Your task to perform on an android device: open app "Airtel Thanks" (install if not already installed) and go to login screen Image 0: 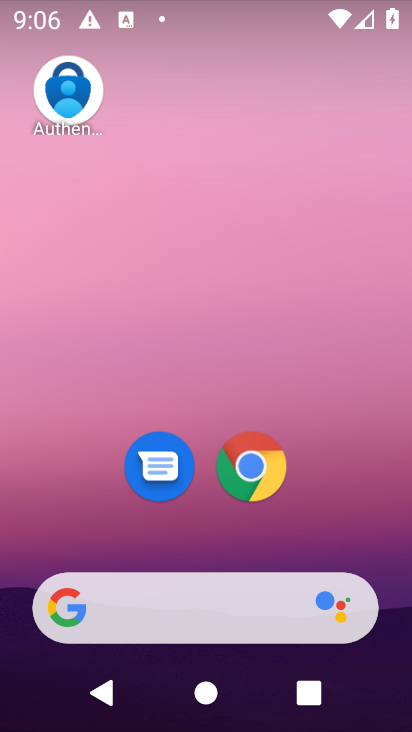
Step 0: drag from (82, 521) to (171, 80)
Your task to perform on an android device: open app "Airtel Thanks" (install if not already installed) and go to login screen Image 1: 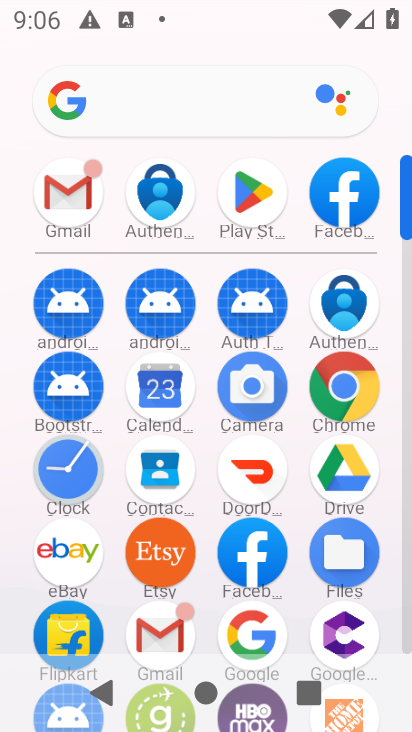
Step 1: click (267, 197)
Your task to perform on an android device: open app "Airtel Thanks" (install if not already installed) and go to login screen Image 2: 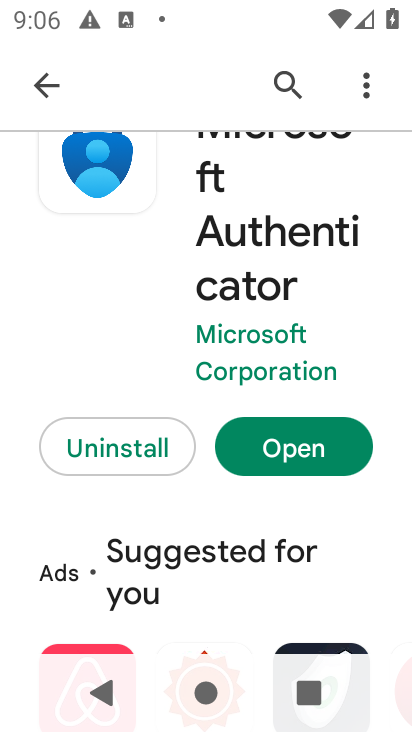
Step 2: click (295, 82)
Your task to perform on an android device: open app "Airtel Thanks" (install if not already installed) and go to login screen Image 3: 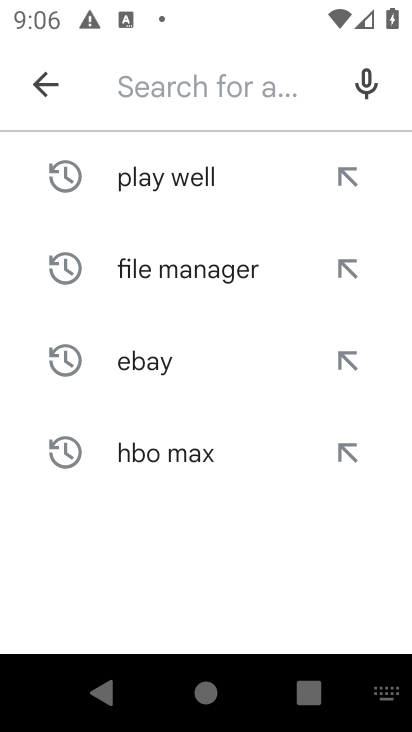
Step 3: click (223, 98)
Your task to perform on an android device: open app "Airtel Thanks" (install if not already installed) and go to login screen Image 4: 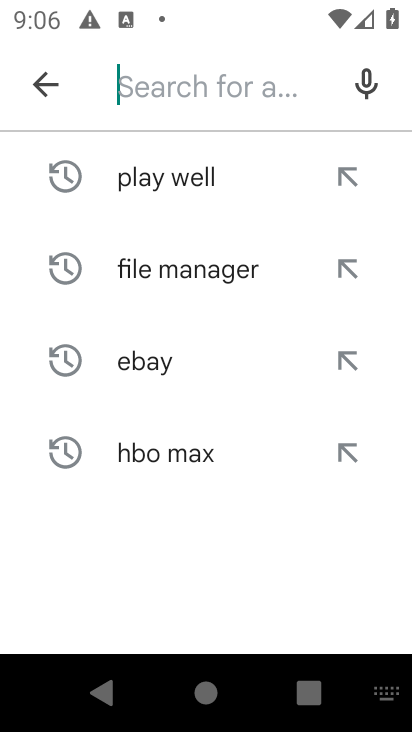
Step 4: type "airtel  thanks"
Your task to perform on an android device: open app "Airtel Thanks" (install if not already installed) and go to login screen Image 5: 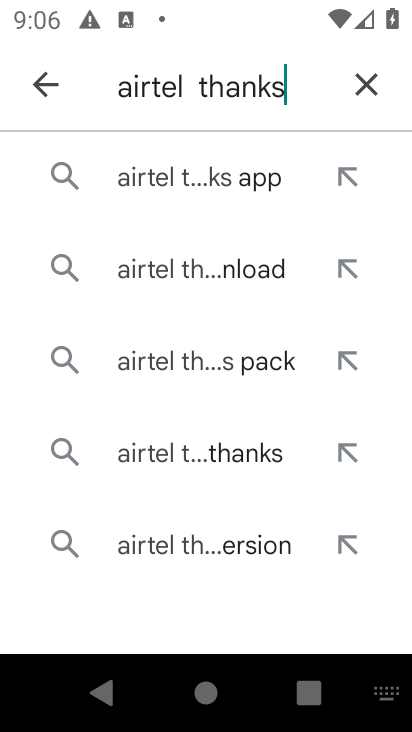
Step 5: click (190, 183)
Your task to perform on an android device: open app "Airtel Thanks" (install if not already installed) and go to login screen Image 6: 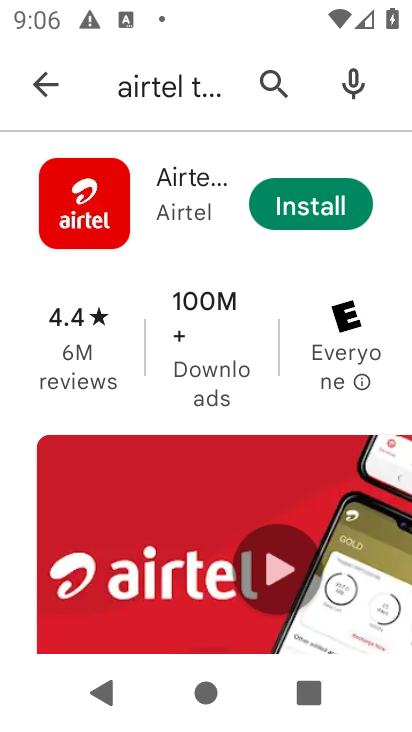
Step 6: click (309, 202)
Your task to perform on an android device: open app "Airtel Thanks" (install if not already installed) and go to login screen Image 7: 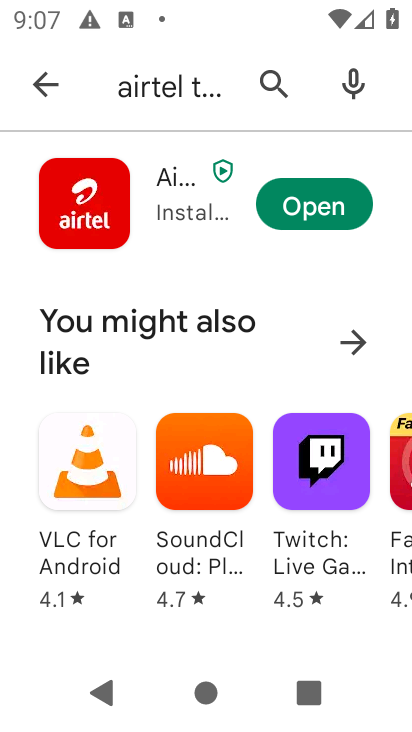
Step 7: click (305, 214)
Your task to perform on an android device: open app "Airtel Thanks" (install if not already installed) and go to login screen Image 8: 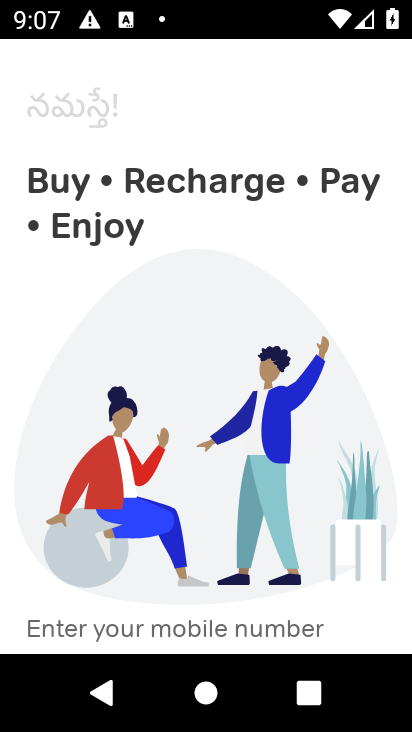
Step 8: task complete